Your task to perform on an android device: open a new tab in the chrome app Image 0: 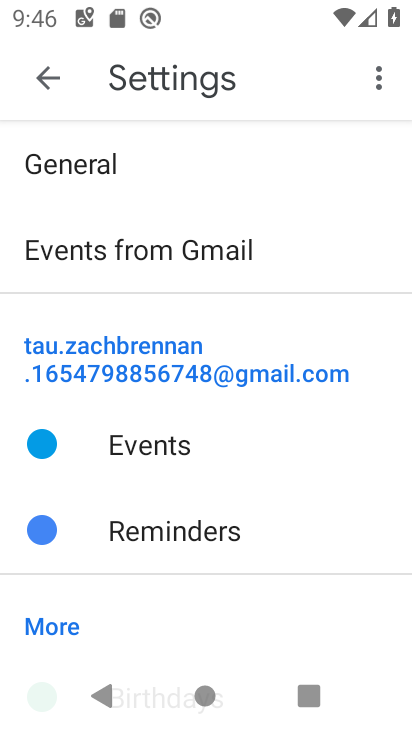
Step 0: press home button
Your task to perform on an android device: open a new tab in the chrome app Image 1: 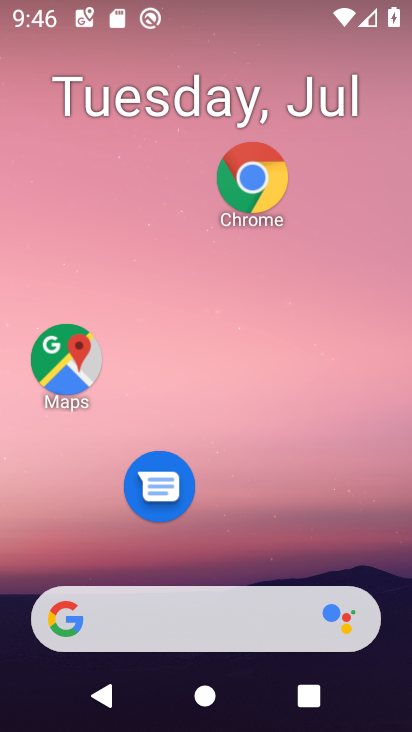
Step 1: drag from (280, 655) to (289, 178)
Your task to perform on an android device: open a new tab in the chrome app Image 2: 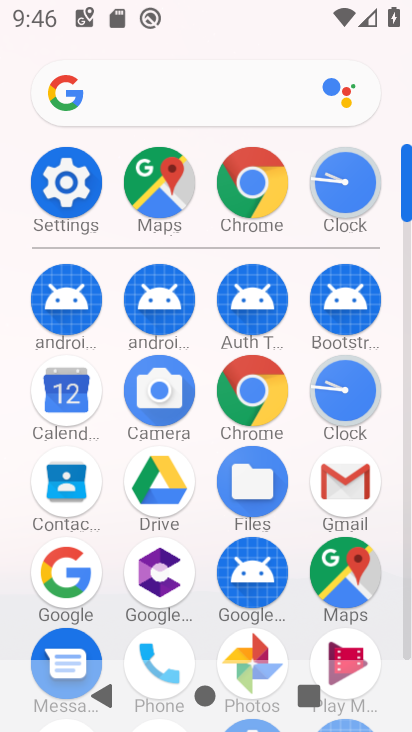
Step 2: click (257, 233)
Your task to perform on an android device: open a new tab in the chrome app Image 3: 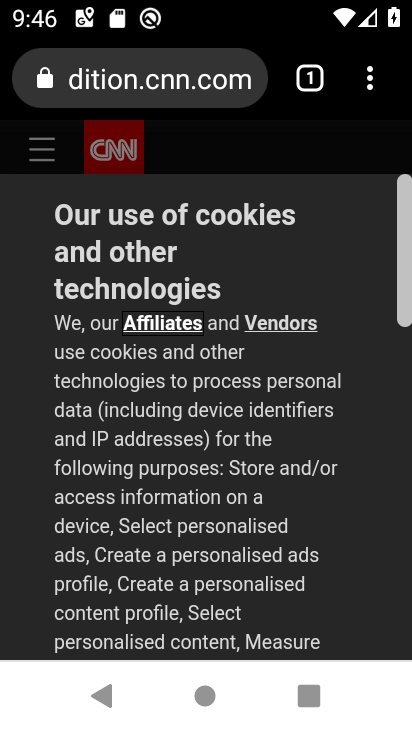
Step 3: drag from (300, 82) to (283, 267)
Your task to perform on an android device: open a new tab in the chrome app Image 4: 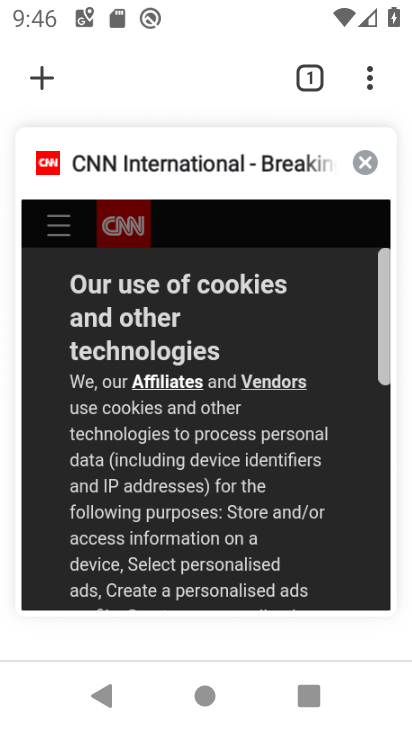
Step 4: click (58, 77)
Your task to perform on an android device: open a new tab in the chrome app Image 5: 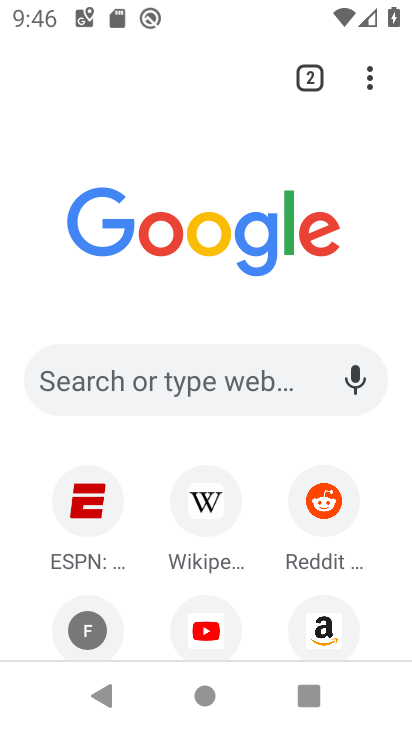
Step 5: task complete